Your task to perform on an android device: empty trash in the gmail app Image 0: 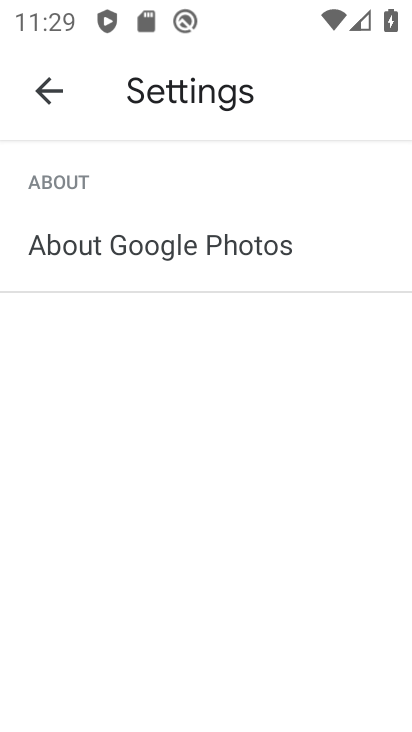
Step 0: press home button
Your task to perform on an android device: empty trash in the gmail app Image 1: 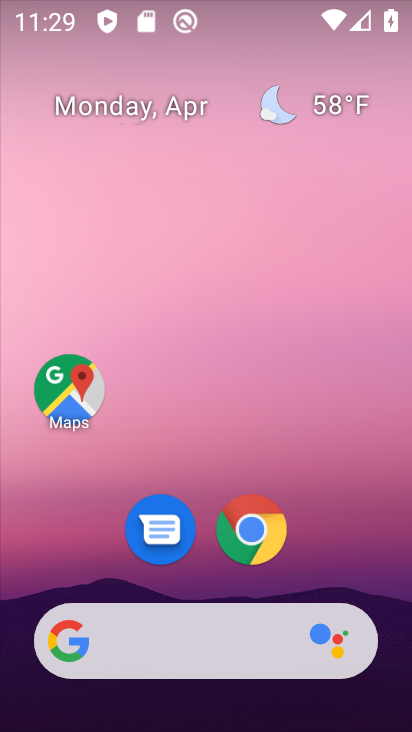
Step 1: drag from (375, 593) to (291, 82)
Your task to perform on an android device: empty trash in the gmail app Image 2: 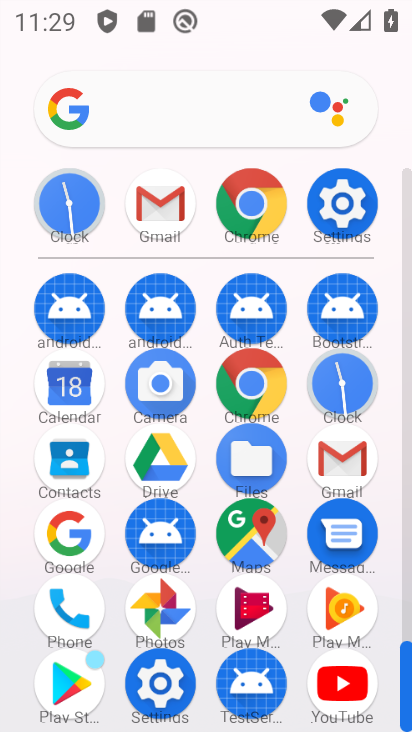
Step 2: click (336, 456)
Your task to perform on an android device: empty trash in the gmail app Image 3: 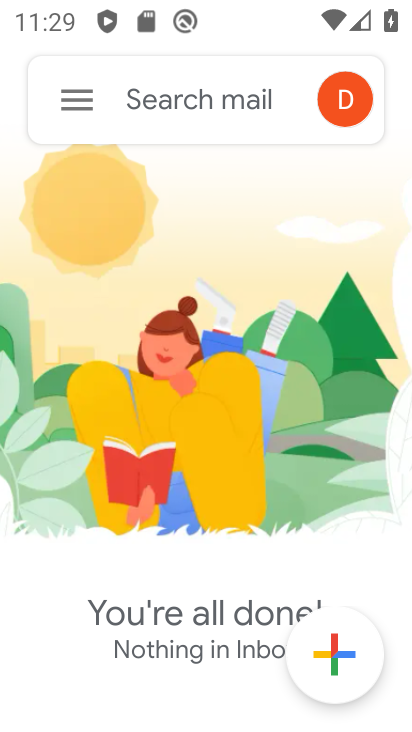
Step 3: click (80, 97)
Your task to perform on an android device: empty trash in the gmail app Image 4: 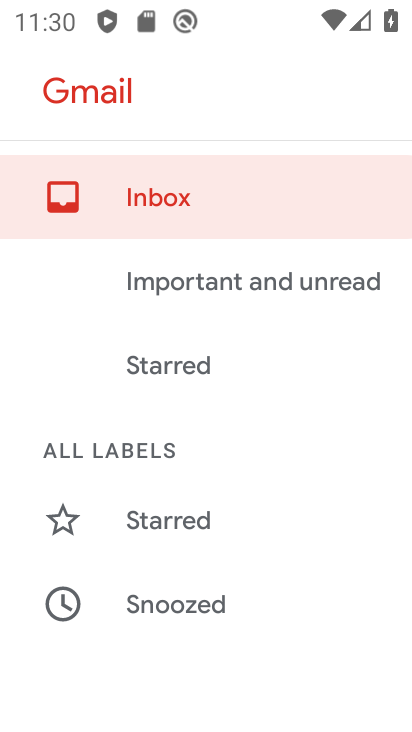
Step 4: drag from (139, 594) to (207, 137)
Your task to perform on an android device: empty trash in the gmail app Image 5: 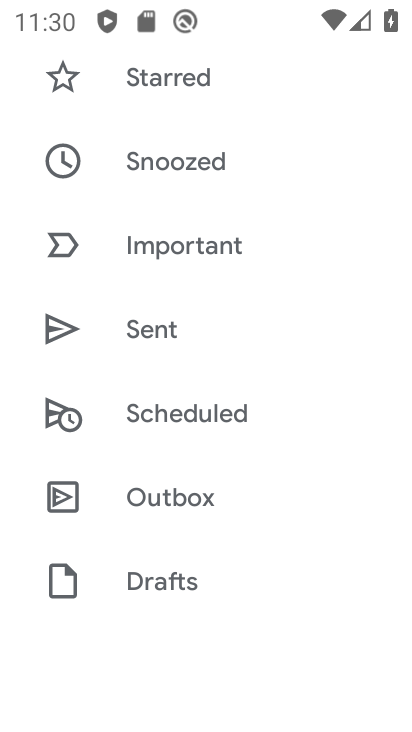
Step 5: drag from (126, 578) to (237, 137)
Your task to perform on an android device: empty trash in the gmail app Image 6: 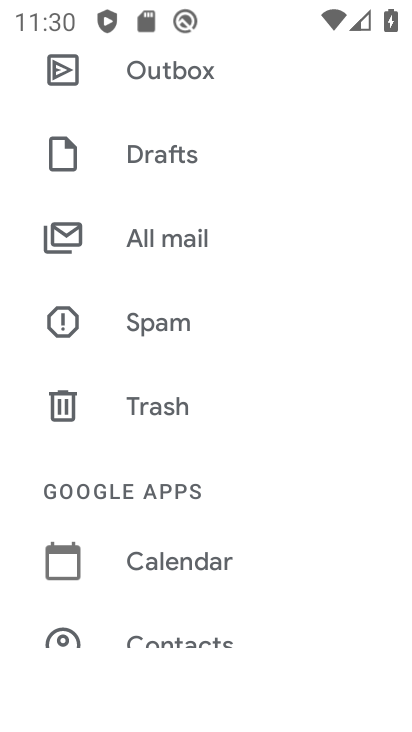
Step 6: click (224, 404)
Your task to perform on an android device: empty trash in the gmail app Image 7: 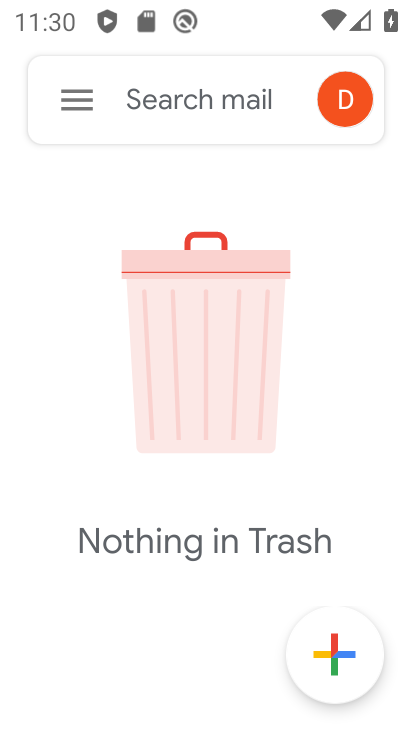
Step 7: task complete